Your task to perform on an android device: Open Yahoo.com Image 0: 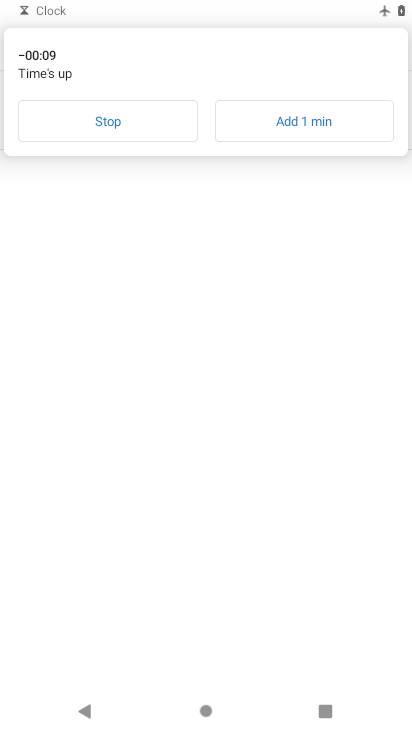
Step 0: press home button
Your task to perform on an android device: Open Yahoo.com Image 1: 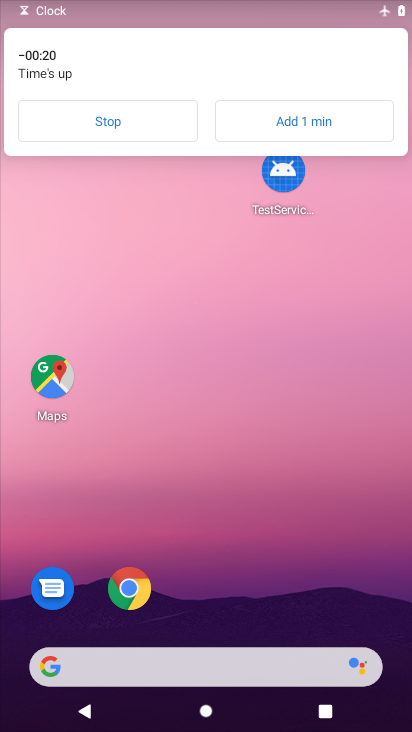
Step 1: click (130, 121)
Your task to perform on an android device: Open Yahoo.com Image 2: 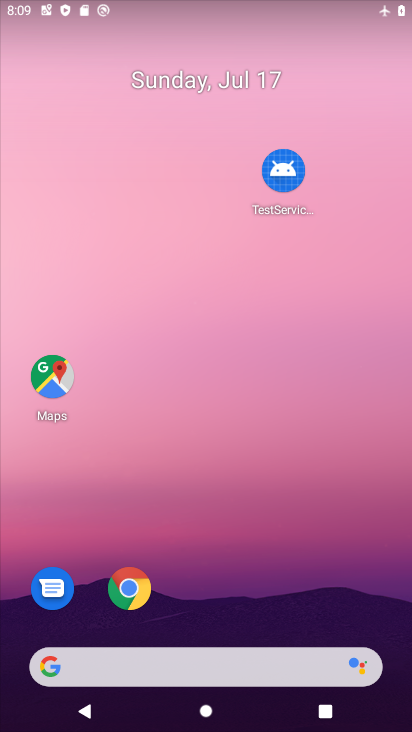
Step 2: click (235, 185)
Your task to perform on an android device: Open Yahoo.com Image 3: 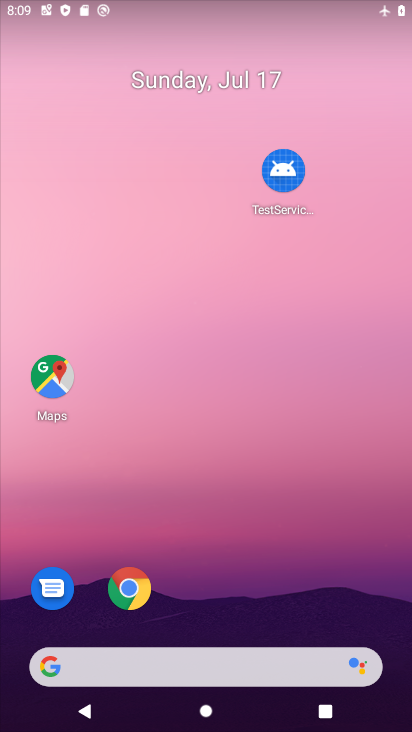
Step 3: drag from (178, 662) to (197, 198)
Your task to perform on an android device: Open Yahoo.com Image 4: 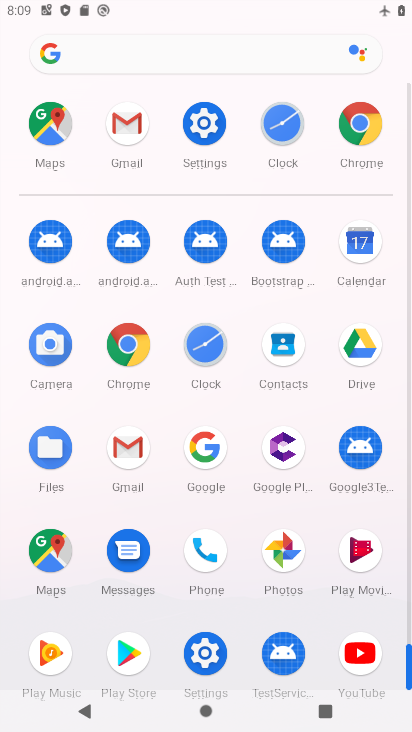
Step 4: click (372, 164)
Your task to perform on an android device: Open Yahoo.com Image 5: 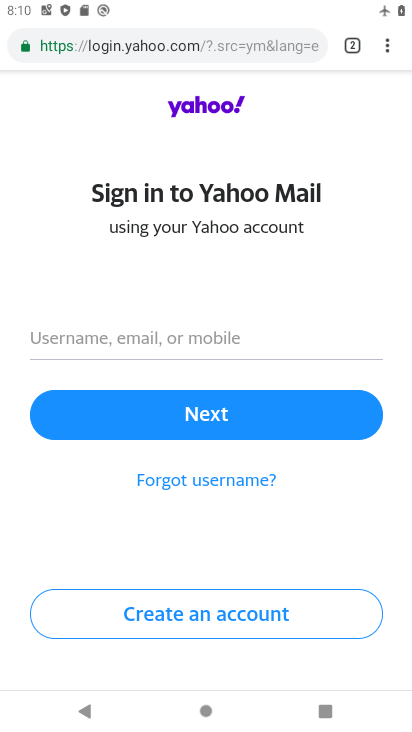
Step 5: task complete